Your task to perform on an android device: change the clock display to analog Image 0: 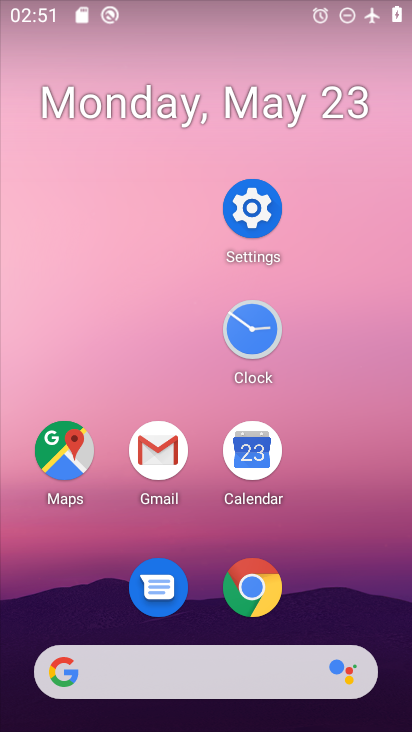
Step 0: click (255, 318)
Your task to perform on an android device: change the clock display to analog Image 1: 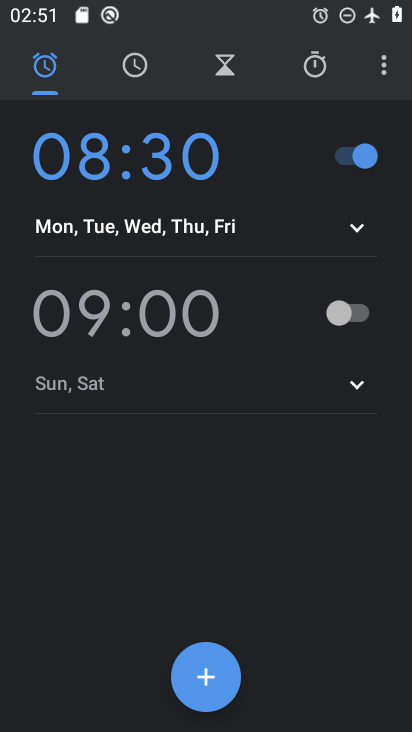
Step 1: click (384, 76)
Your task to perform on an android device: change the clock display to analog Image 2: 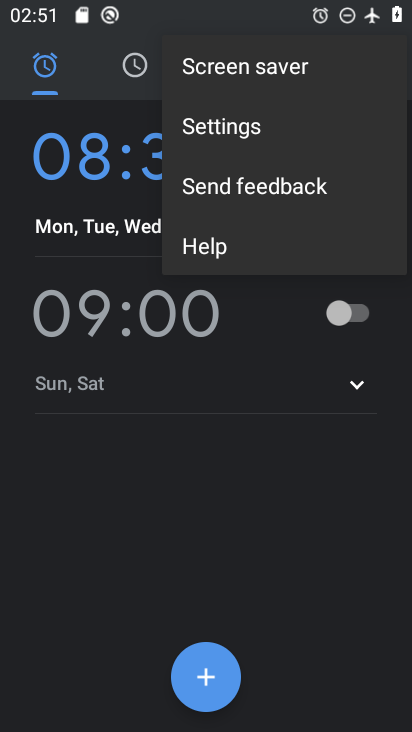
Step 2: click (317, 117)
Your task to perform on an android device: change the clock display to analog Image 3: 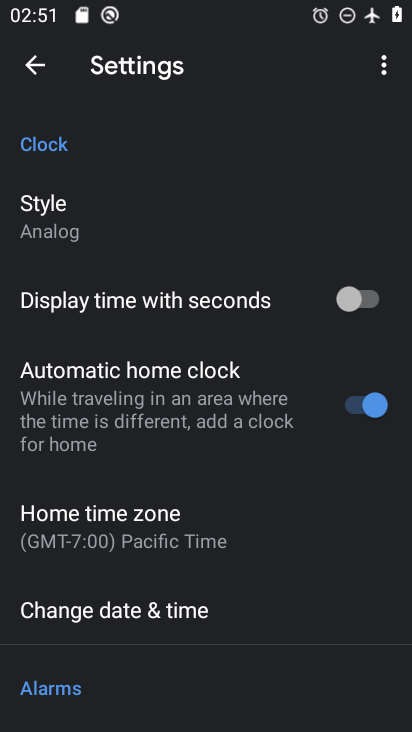
Step 3: task complete